Your task to perform on an android device: Go to wifi settings Image 0: 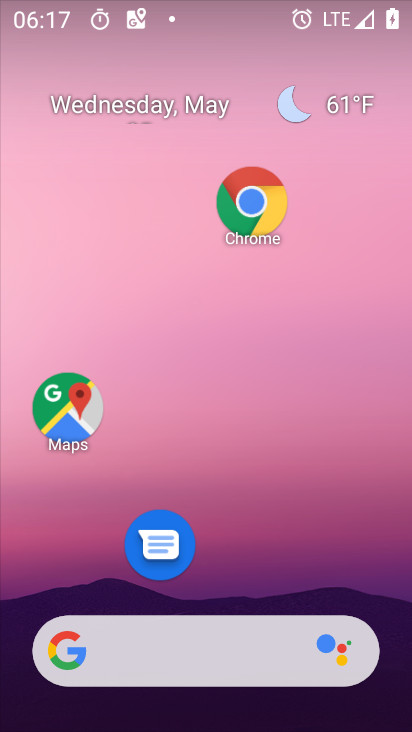
Step 0: drag from (221, 465) to (221, 249)
Your task to perform on an android device: Go to wifi settings Image 1: 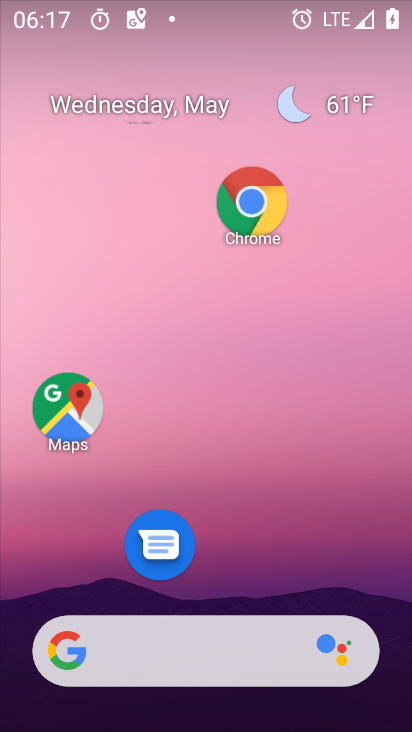
Step 1: drag from (213, 580) to (230, 236)
Your task to perform on an android device: Go to wifi settings Image 2: 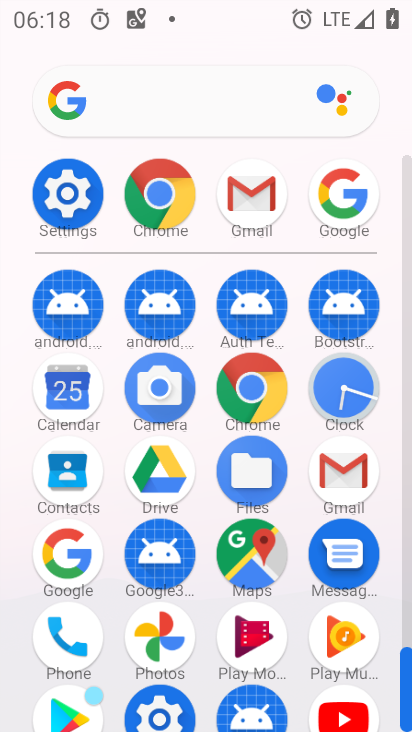
Step 2: click (55, 208)
Your task to perform on an android device: Go to wifi settings Image 3: 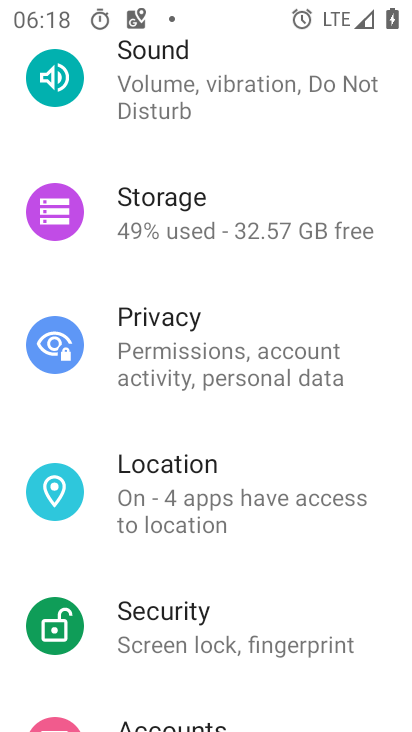
Step 3: drag from (203, 136) to (209, 609)
Your task to perform on an android device: Go to wifi settings Image 4: 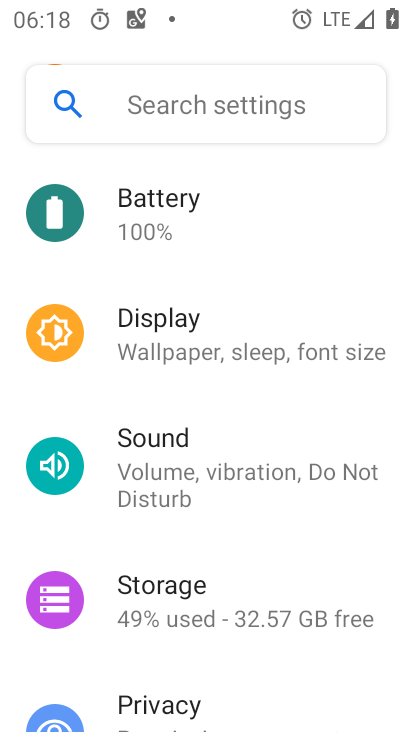
Step 4: drag from (261, 213) to (268, 620)
Your task to perform on an android device: Go to wifi settings Image 5: 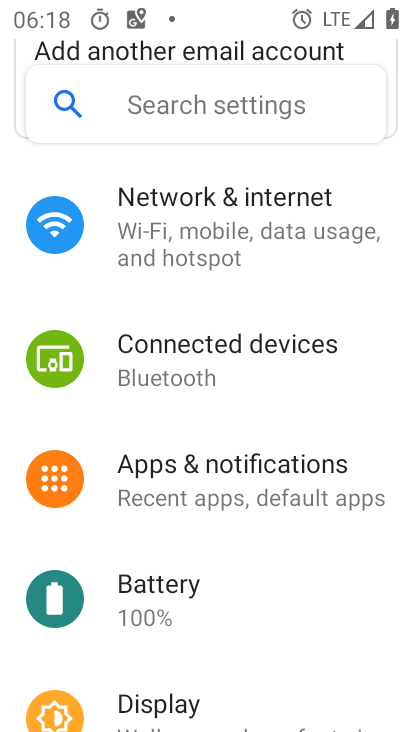
Step 5: drag from (281, 189) to (274, 622)
Your task to perform on an android device: Go to wifi settings Image 6: 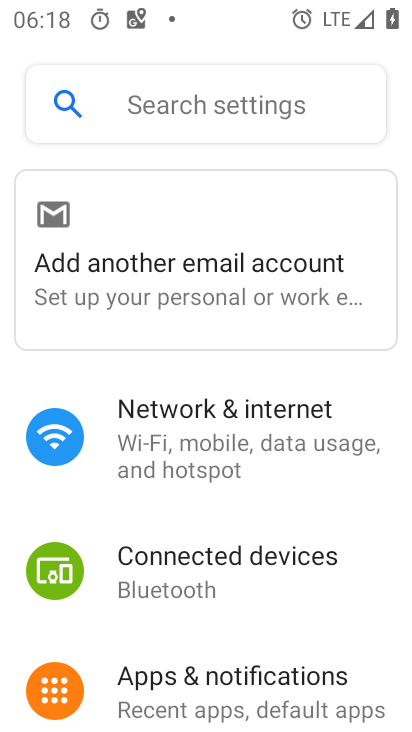
Step 6: click (234, 419)
Your task to perform on an android device: Go to wifi settings Image 7: 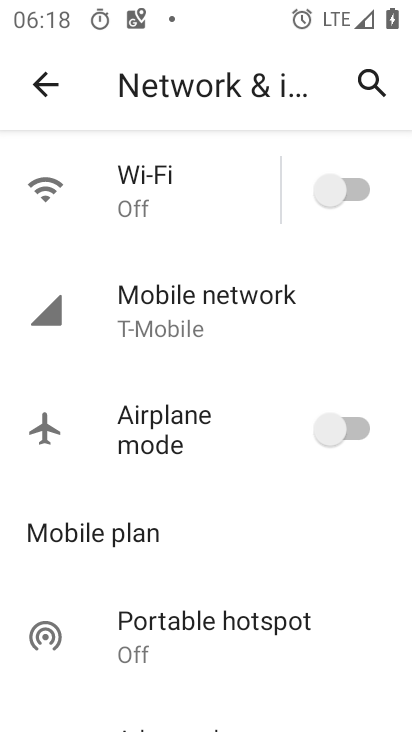
Step 7: click (181, 182)
Your task to perform on an android device: Go to wifi settings Image 8: 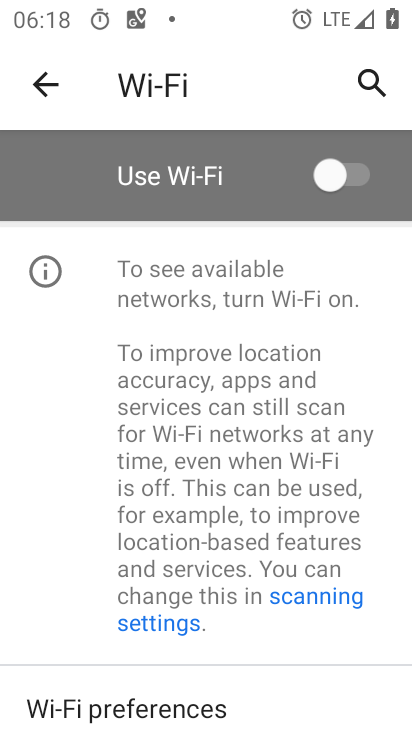
Step 8: drag from (264, 510) to (285, 268)
Your task to perform on an android device: Go to wifi settings Image 9: 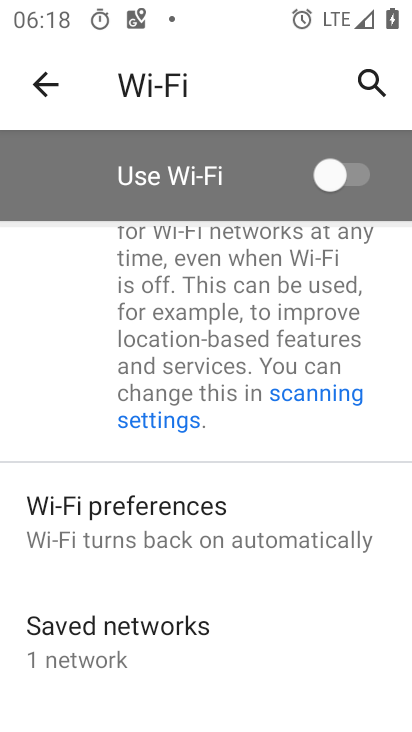
Step 9: drag from (315, 225) to (304, 639)
Your task to perform on an android device: Go to wifi settings Image 10: 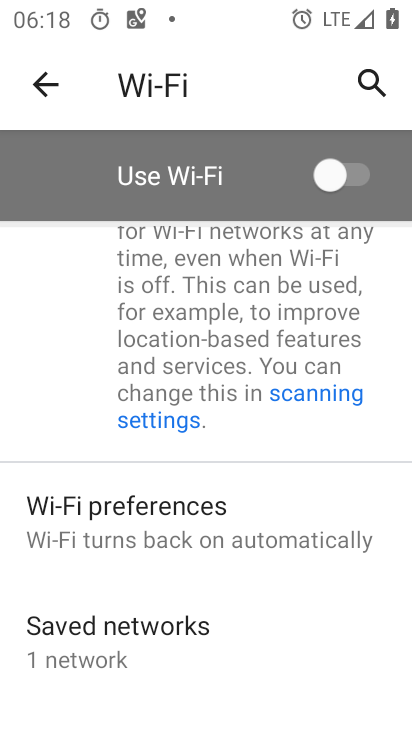
Step 10: click (352, 177)
Your task to perform on an android device: Go to wifi settings Image 11: 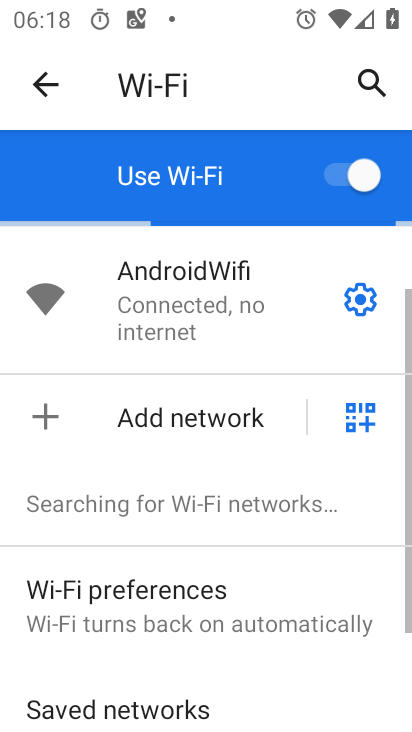
Step 11: click (362, 297)
Your task to perform on an android device: Go to wifi settings Image 12: 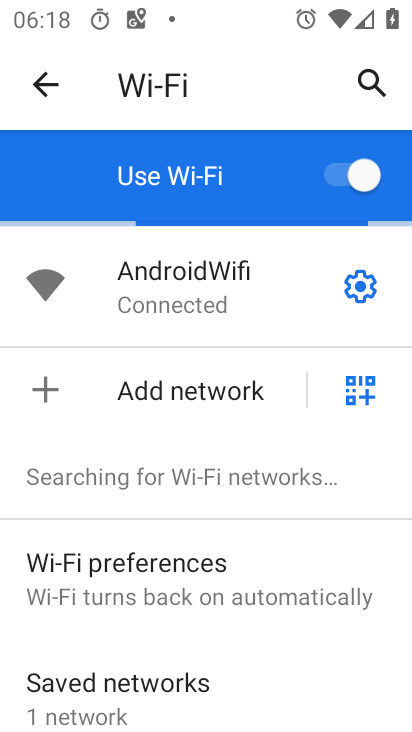
Step 12: click (374, 271)
Your task to perform on an android device: Go to wifi settings Image 13: 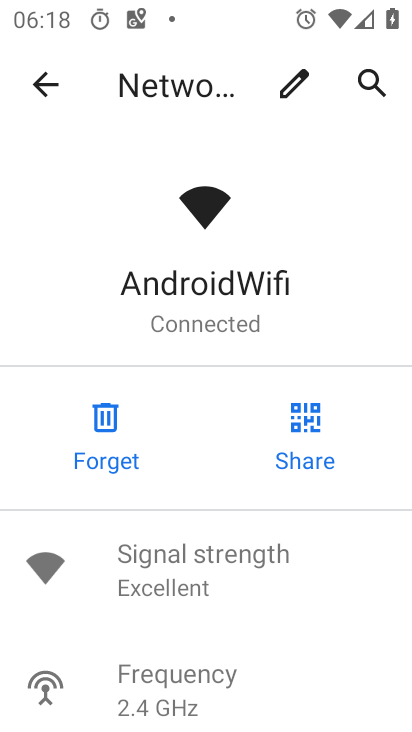
Step 13: task complete